Your task to perform on an android device: Open Chrome and go to the settings page Image 0: 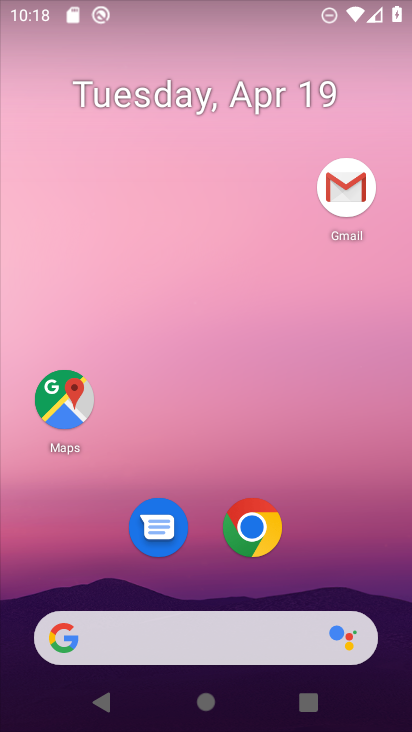
Step 0: drag from (325, 449) to (310, 98)
Your task to perform on an android device: Open Chrome and go to the settings page Image 1: 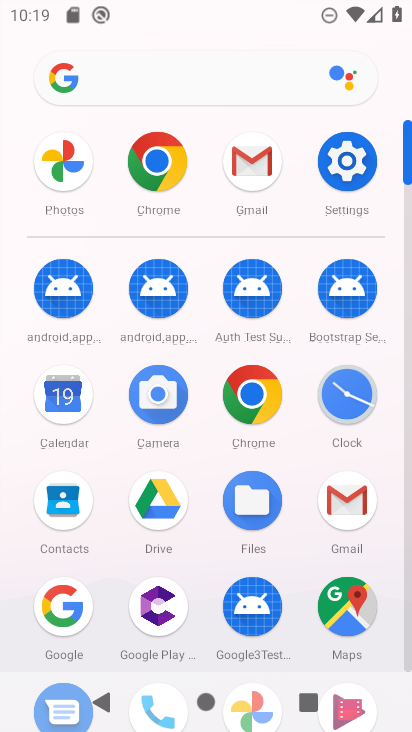
Step 1: drag from (297, 434) to (290, 141)
Your task to perform on an android device: Open Chrome and go to the settings page Image 2: 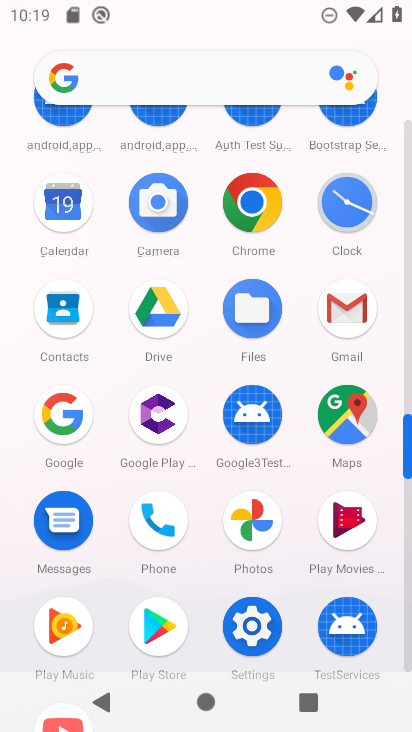
Step 2: click (255, 214)
Your task to perform on an android device: Open Chrome and go to the settings page Image 3: 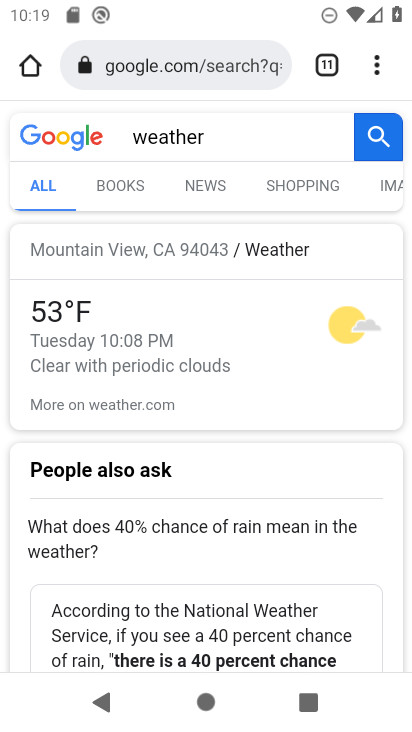
Step 3: click (380, 74)
Your task to perform on an android device: Open Chrome and go to the settings page Image 4: 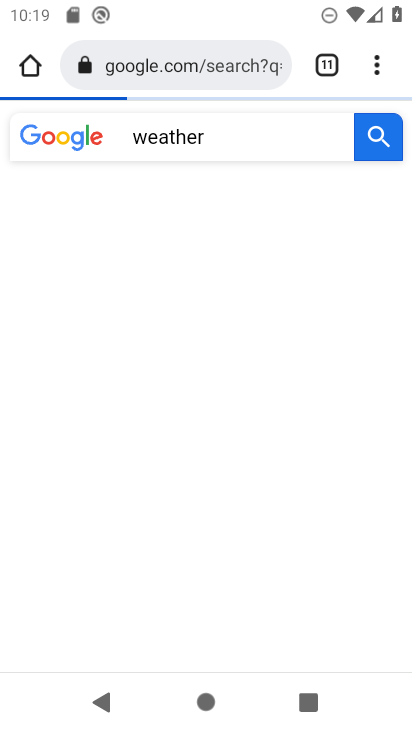
Step 4: task complete